Your task to perform on an android device: Open the map Image 0: 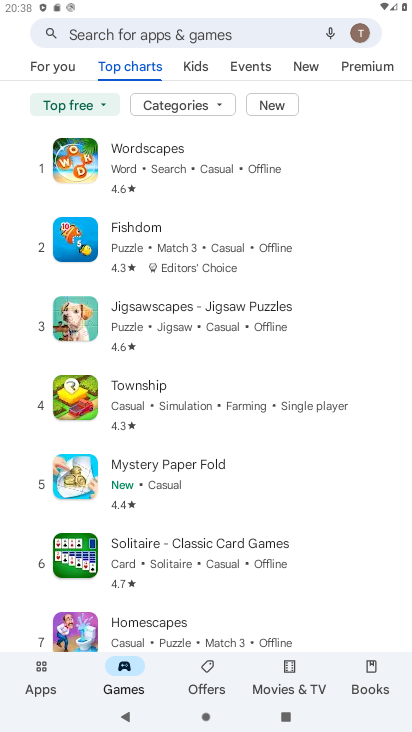
Step 0: press home button
Your task to perform on an android device: Open the map Image 1: 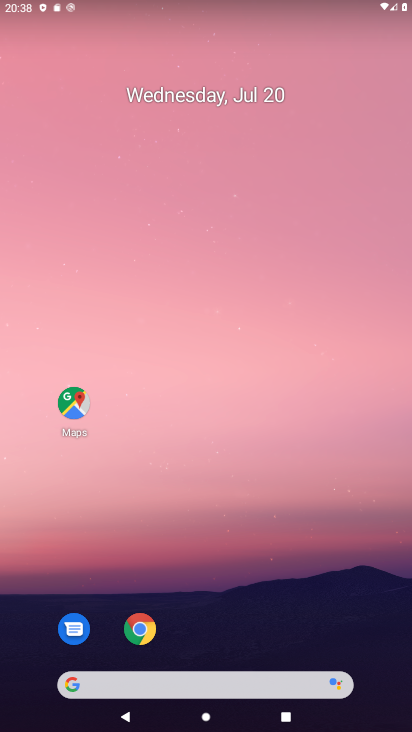
Step 1: click (71, 421)
Your task to perform on an android device: Open the map Image 2: 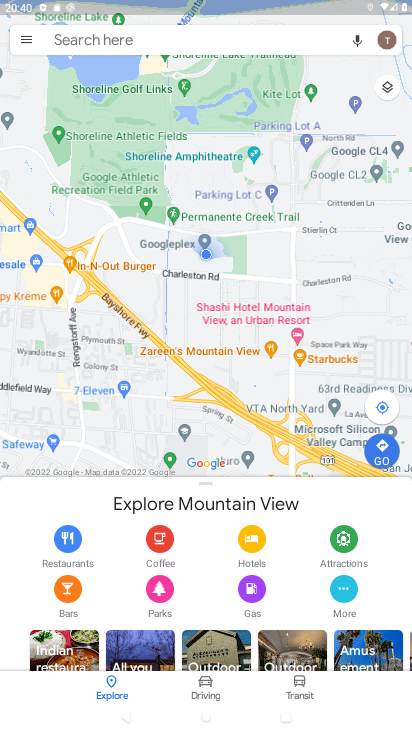
Step 2: task complete